Your task to perform on an android device: show emergency info Image 0: 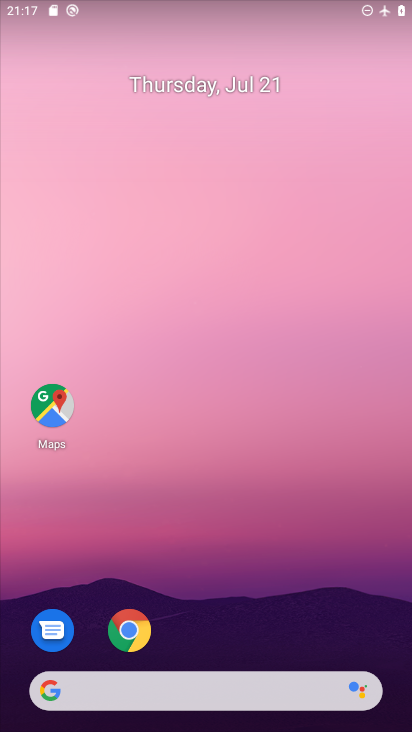
Step 0: drag from (261, 590) to (293, 87)
Your task to perform on an android device: show emergency info Image 1: 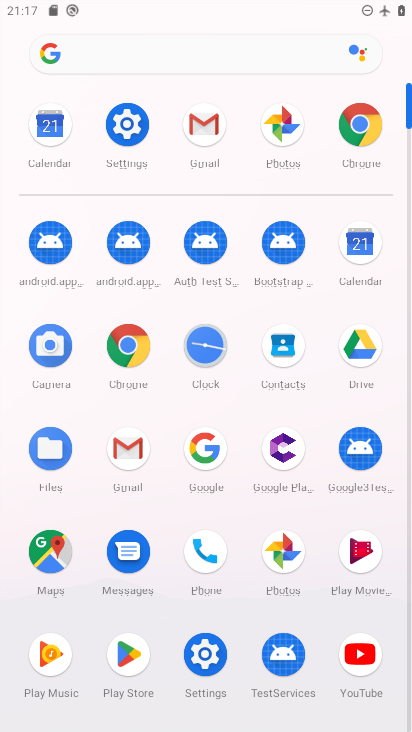
Step 1: click (133, 117)
Your task to perform on an android device: show emergency info Image 2: 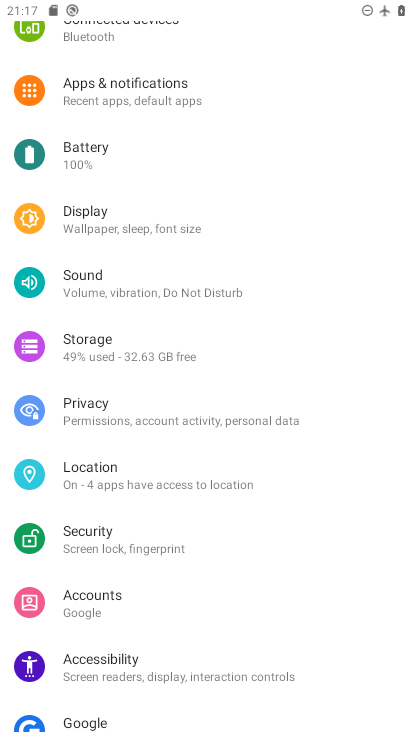
Step 2: drag from (230, 702) to (245, 95)
Your task to perform on an android device: show emergency info Image 3: 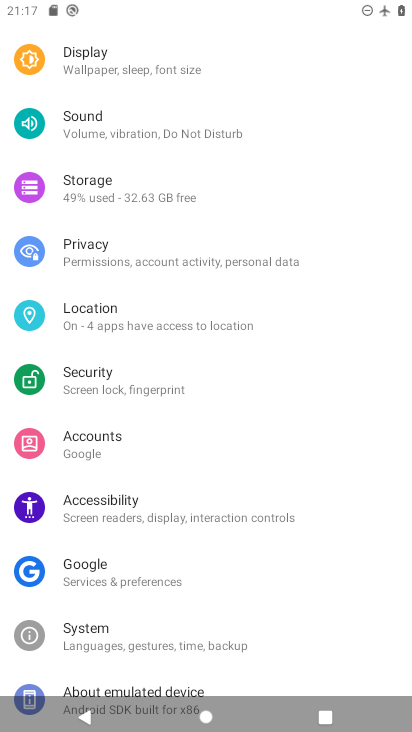
Step 3: click (116, 688)
Your task to perform on an android device: show emergency info Image 4: 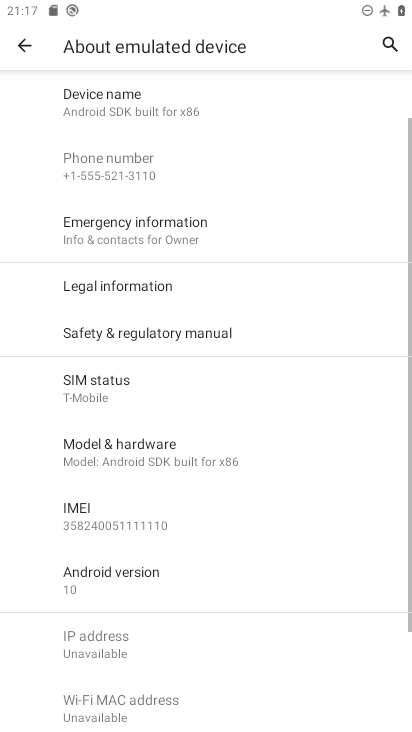
Step 4: click (145, 239)
Your task to perform on an android device: show emergency info Image 5: 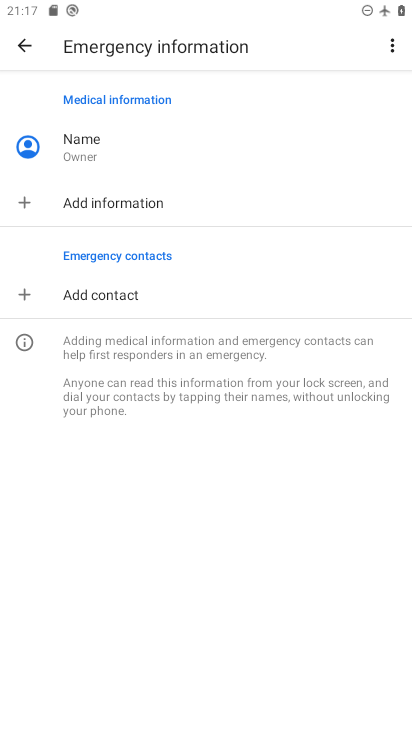
Step 5: task complete